Your task to perform on an android device: Play the new Drake video on YouTube Image 0: 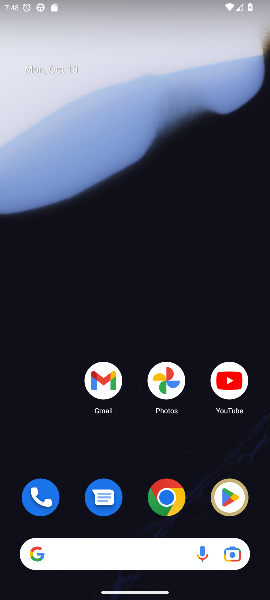
Step 0: drag from (130, 223) to (134, 69)
Your task to perform on an android device: Play the new Drake video on YouTube Image 1: 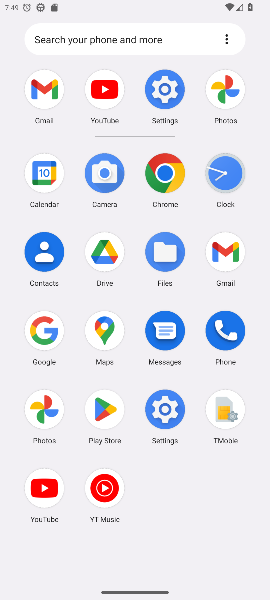
Step 1: click (37, 325)
Your task to perform on an android device: Play the new Drake video on YouTube Image 2: 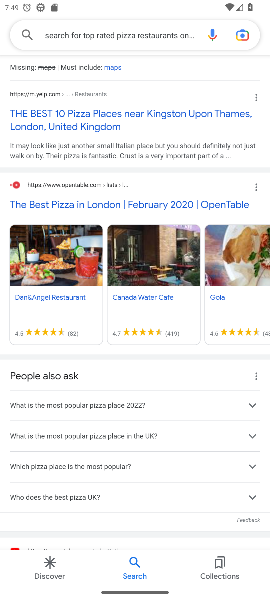
Step 2: click (143, 27)
Your task to perform on an android device: Play the new Drake video on YouTube Image 3: 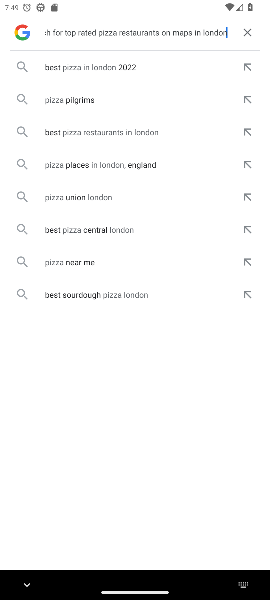
Step 3: click (238, 27)
Your task to perform on an android device: Play the new Drake video on YouTube Image 4: 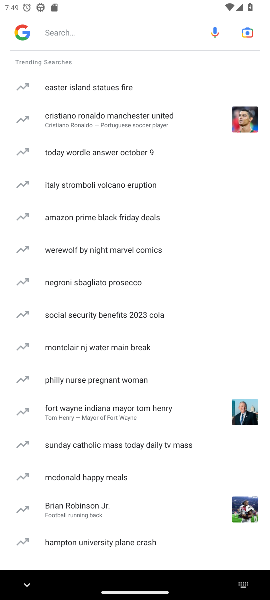
Step 4: click (125, 25)
Your task to perform on an android device: Play the new Drake video on YouTube Image 5: 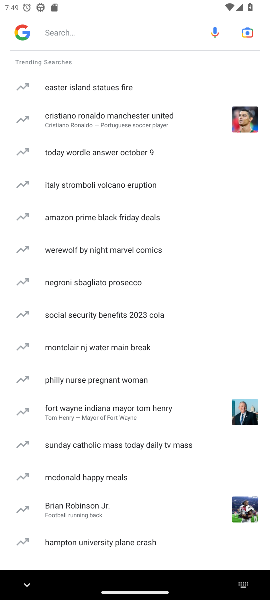
Step 5: type "Play the new Drake video on YouTube "
Your task to perform on an android device: Play the new Drake video on YouTube Image 6: 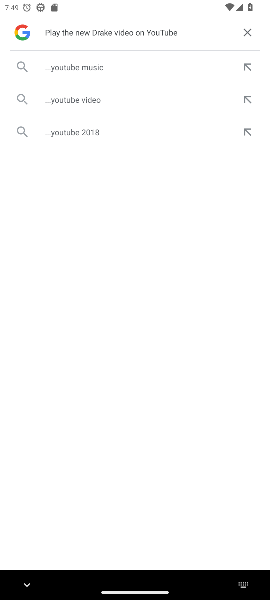
Step 6: click (103, 68)
Your task to perform on an android device: Play the new Drake video on YouTube Image 7: 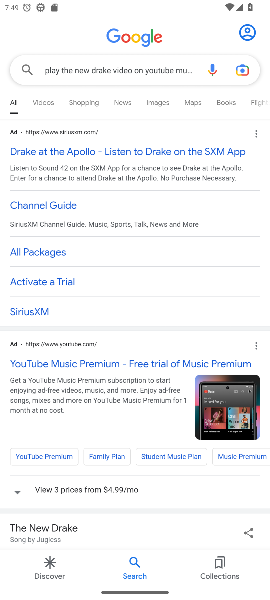
Step 7: click (39, 362)
Your task to perform on an android device: Play the new Drake video on YouTube Image 8: 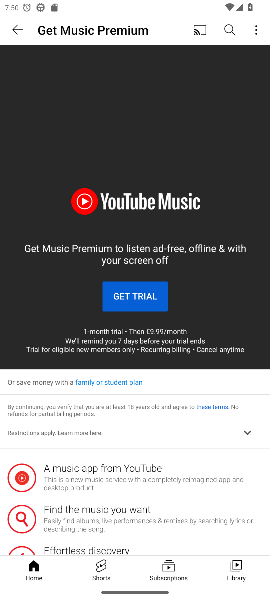
Step 8: drag from (147, 452) to (149, 362)
Your task to perform on an android device: Play the new Drake video on YouTube Image 9: 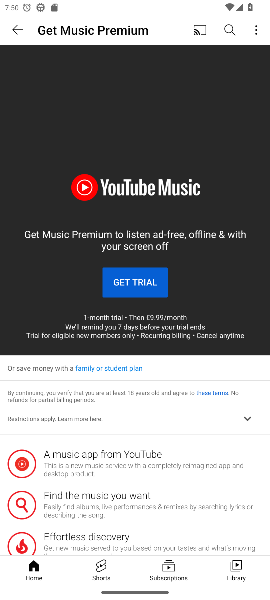
Step 9: drag from (152, 331) to (157, 284)
Your task to perform on an android device: Play the new Drake video on YouTube Image 10: 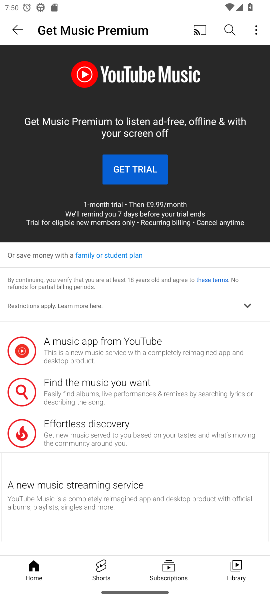
Step 10: click (133, 168)
Your task to perform on an android device: Play the new Drake video on YouTube Image 11: 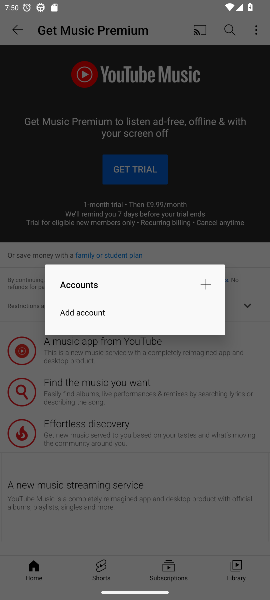
Step 11: click (204, 219)
Your task to perform on an android device: Play the new Drake video on YouTube Image 12: 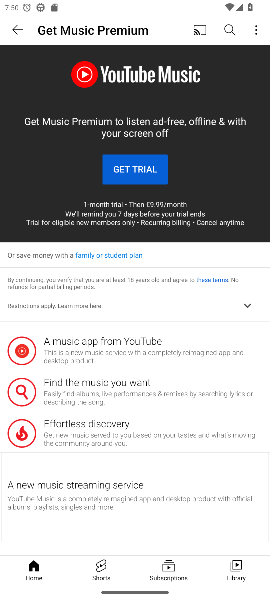
Step 12: drag from (172, 427) to (166, 153)
Your task to perform on an android device: Play the new Drake video on YouTube Image 13: 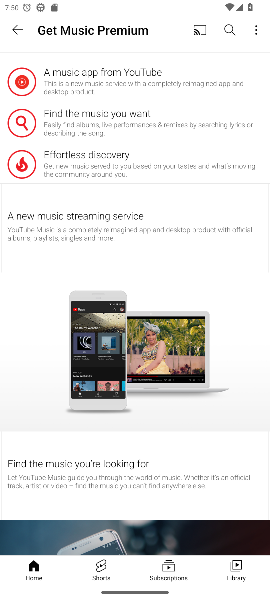
Step 13: drag from (111, 46) to (47, 529)
Your task to perform on an android device: Play the new Drake video on YouTube Image 14: 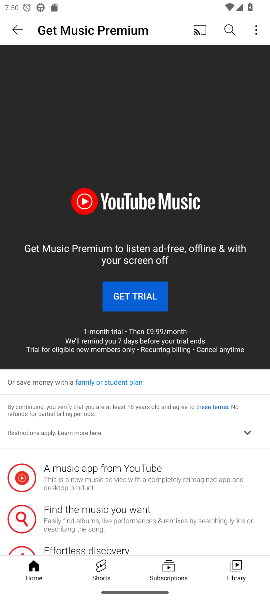
Step 14: click (13, 21)
Your task to perform on an android device: Play the new Drake video on YouTube Image 15: 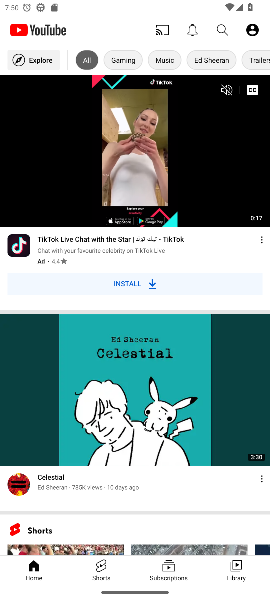
Step 15: click (215, 29)
Your task to perform on an android device: Play the new Drake video on YouTube Image 16: 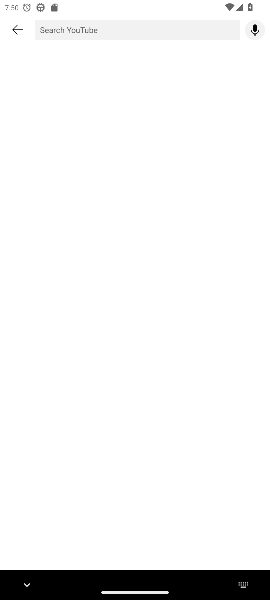
Step 16: click (92, 25)
Your task to perform on an android device: Play the new Drake video on YouTube Image 17: 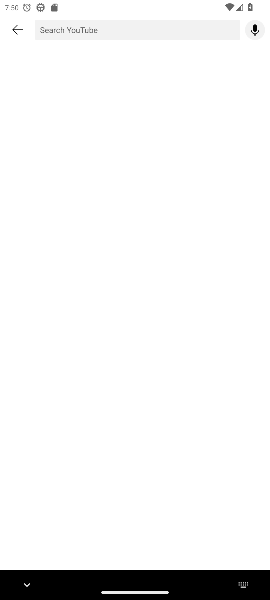
Step 17: type " new Drake video on YouTube "
Your task to perform on an android device: Play the new Drake video on YouTube Image 18: 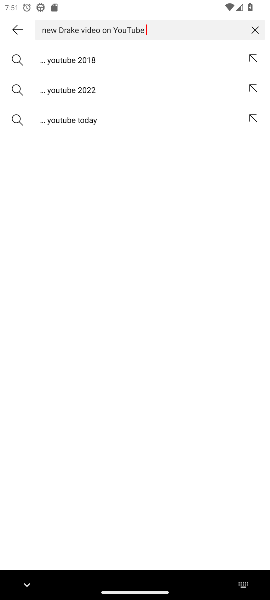
Step 18: click (88, 58)
Your task to perform on an android device: Play the new Drake video on YouTube Image 19: 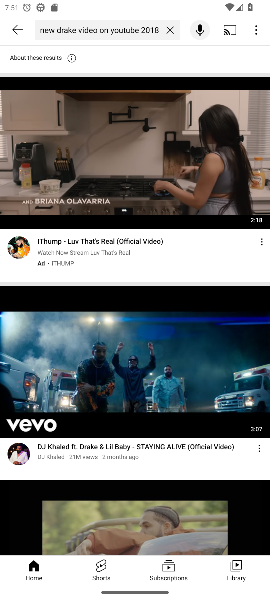
Step 19: task complete